Your task to perform on an android device: turn off picture-in-picture Image 0: 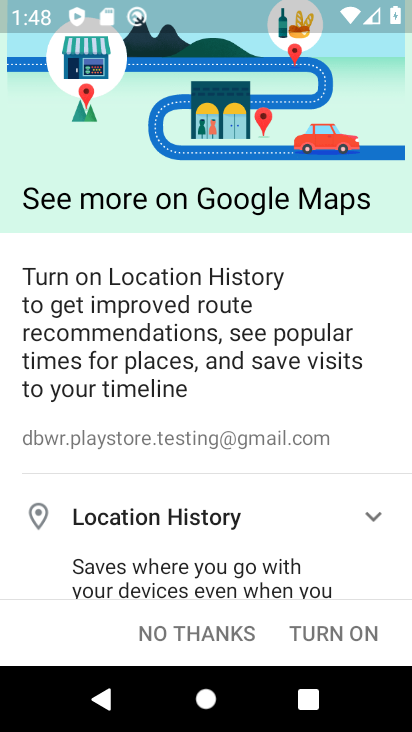
Step 0: press home button
Your task to perform on an android device: turn off picture-in-picture Image 1: 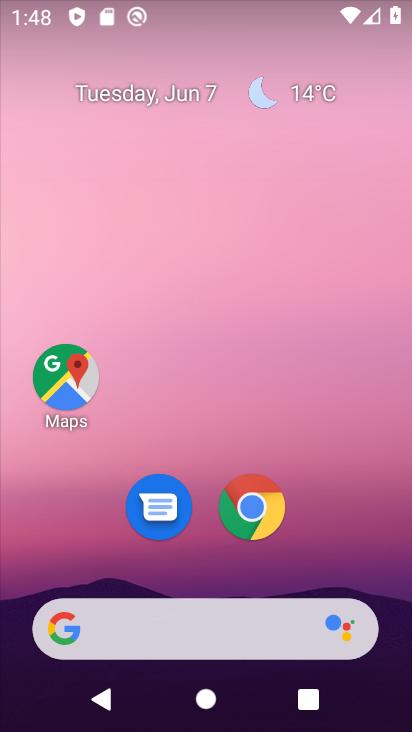
Step 1: click (246, 501)
Your task to perform on an android device: turn off picture-in-picture Image 2: 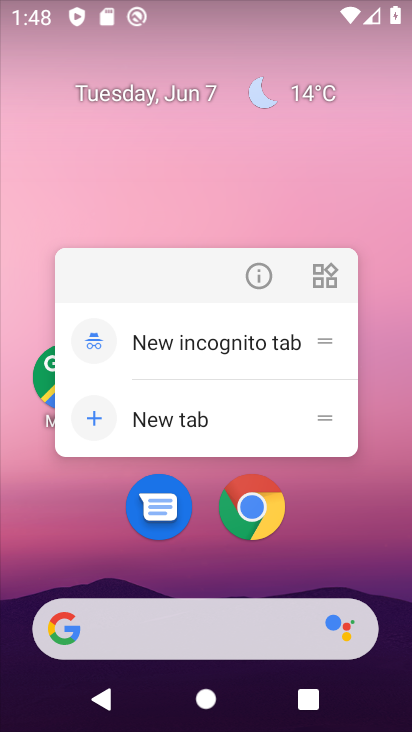
Step 2: click (249, 274)
Your task to perform on an android device: turn off picture-in-picture Image 3: 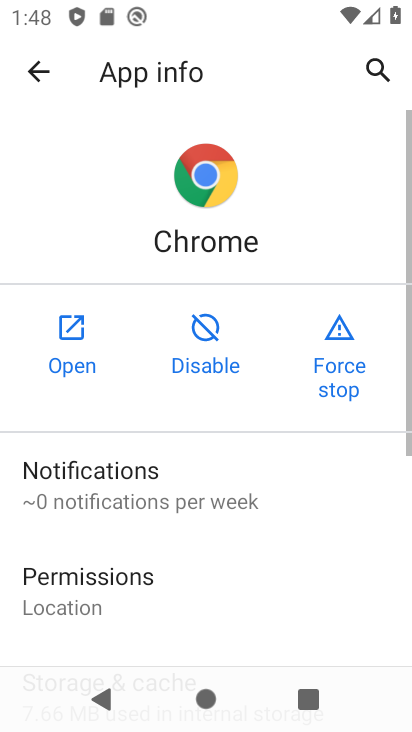
Step 3: drag from (319, 578) to (364, 94)
Your task to perform on an android device: turn off picture-in-picture Image 4: 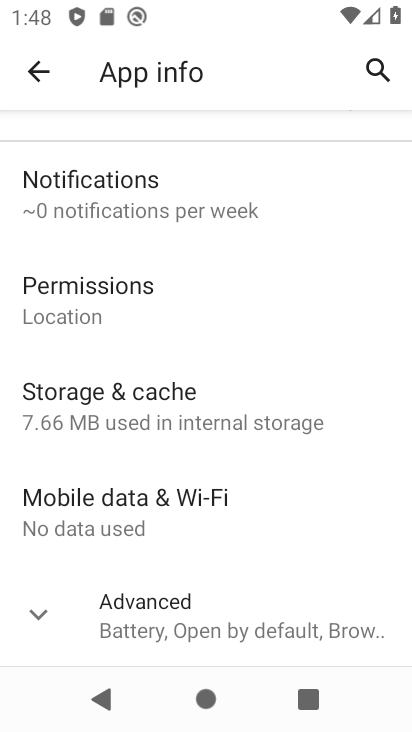
Step 4: click (293, 636)
Your task to perform on an android device: turn off picture-in-picture Image 5: 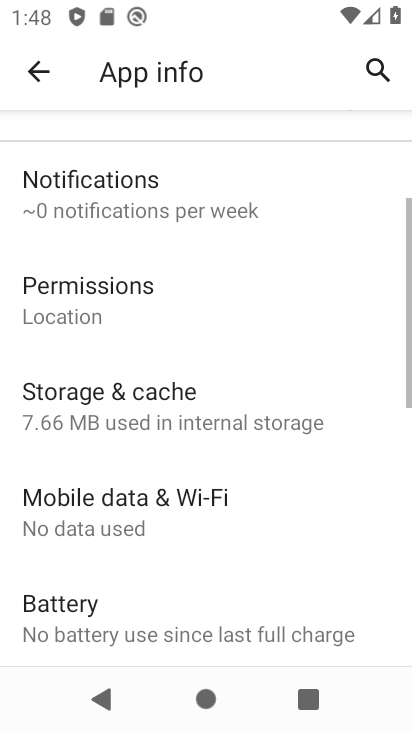
Step 5: drag from (293, 590) to (338, 149)
Your task to perform on an android device: turn off picture-in-picture Image 6: 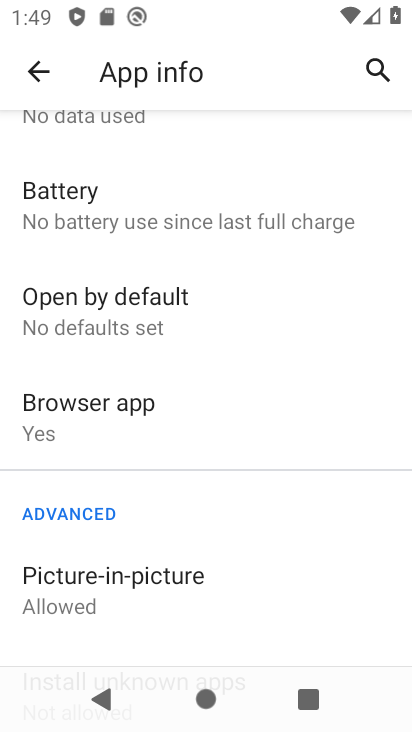
Step 6: click (182, 596)
Your task to perform on an android device: turn off picture-in-picture Image 7: 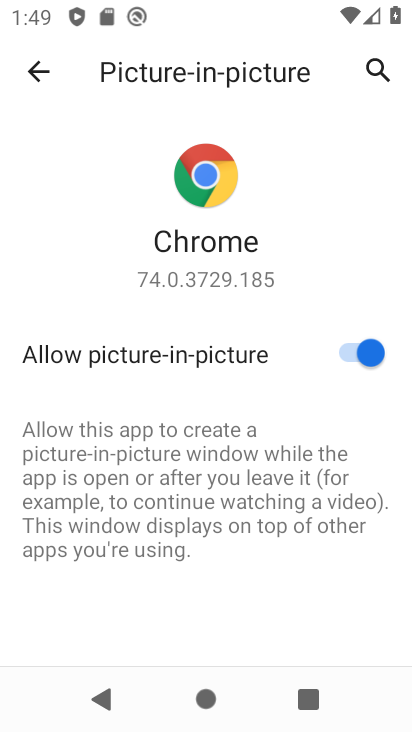
Step 7: click (344, 359)
Your task to perform on an android device: turn off picture-in-picture Image 8: 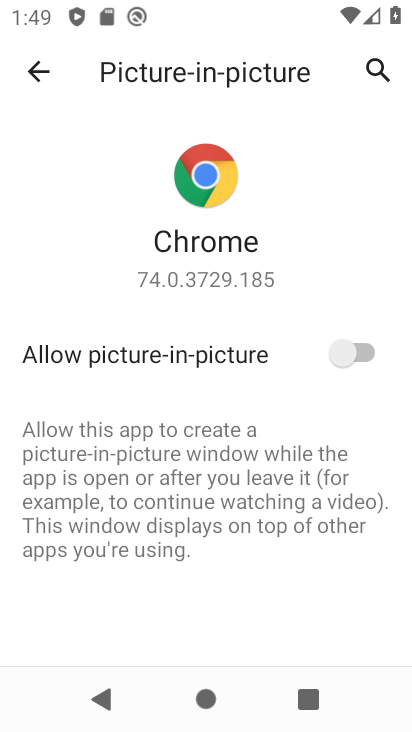
Step 8: task complete